Your task to perform on an android device: Open battery settings Image 0: 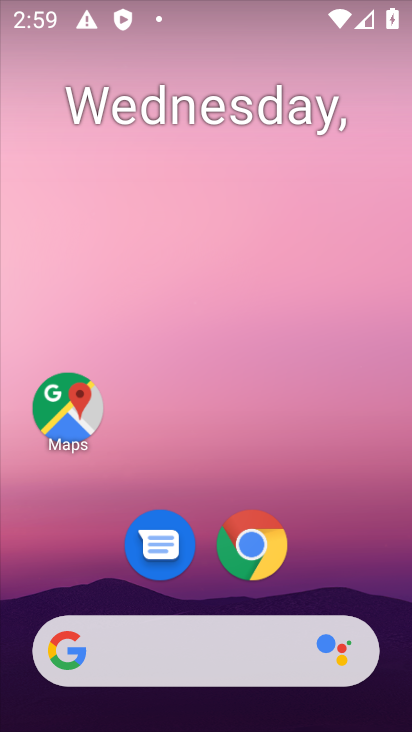
Step 0: drag from (189, 630) to (179, 169)
Your task to perform on an android device: Open battery settings Image 1: 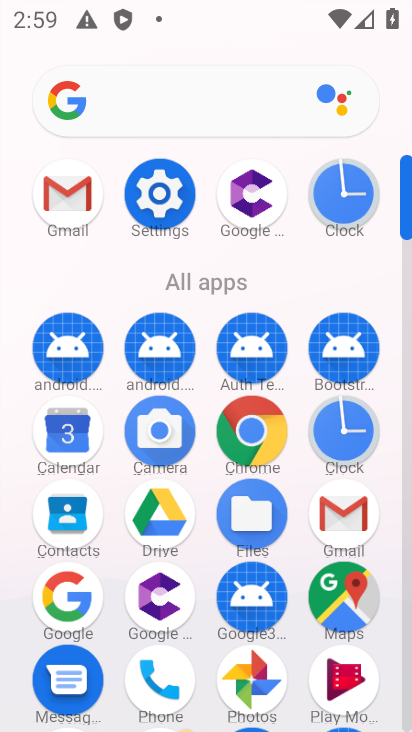
Step 1: click (160, 187)
Your task to perform on an android device: Open battery settings Image 2: 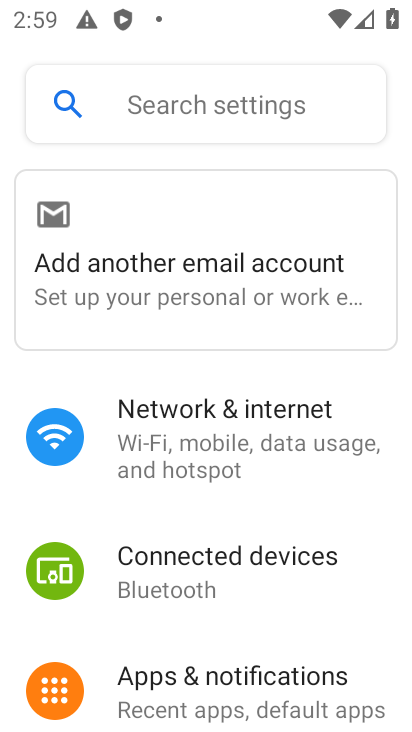
Step 2: drag from (210, 569) to (175, 165)
Your task to perform on an android device: Open battery settings Image 3: 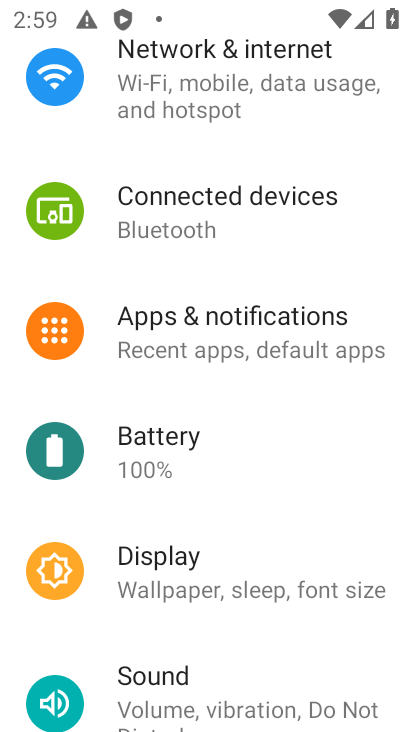
Step 3: click (143, 443)
Your task to perform on an android device: Open battery settings Image 4: 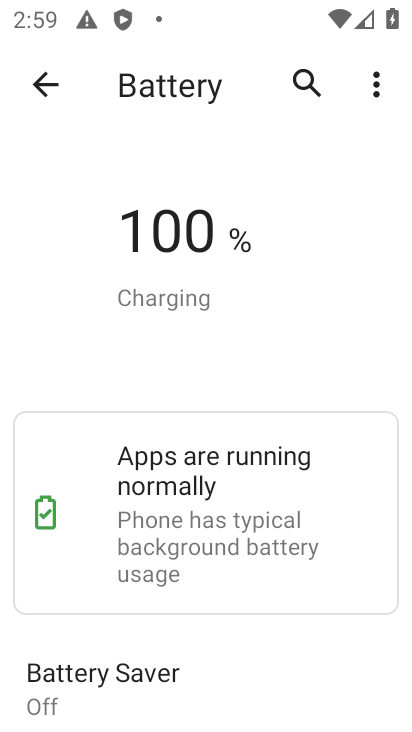
Step 4: task complete